Your task to perform on an android device: turn notification dots on Image 0: 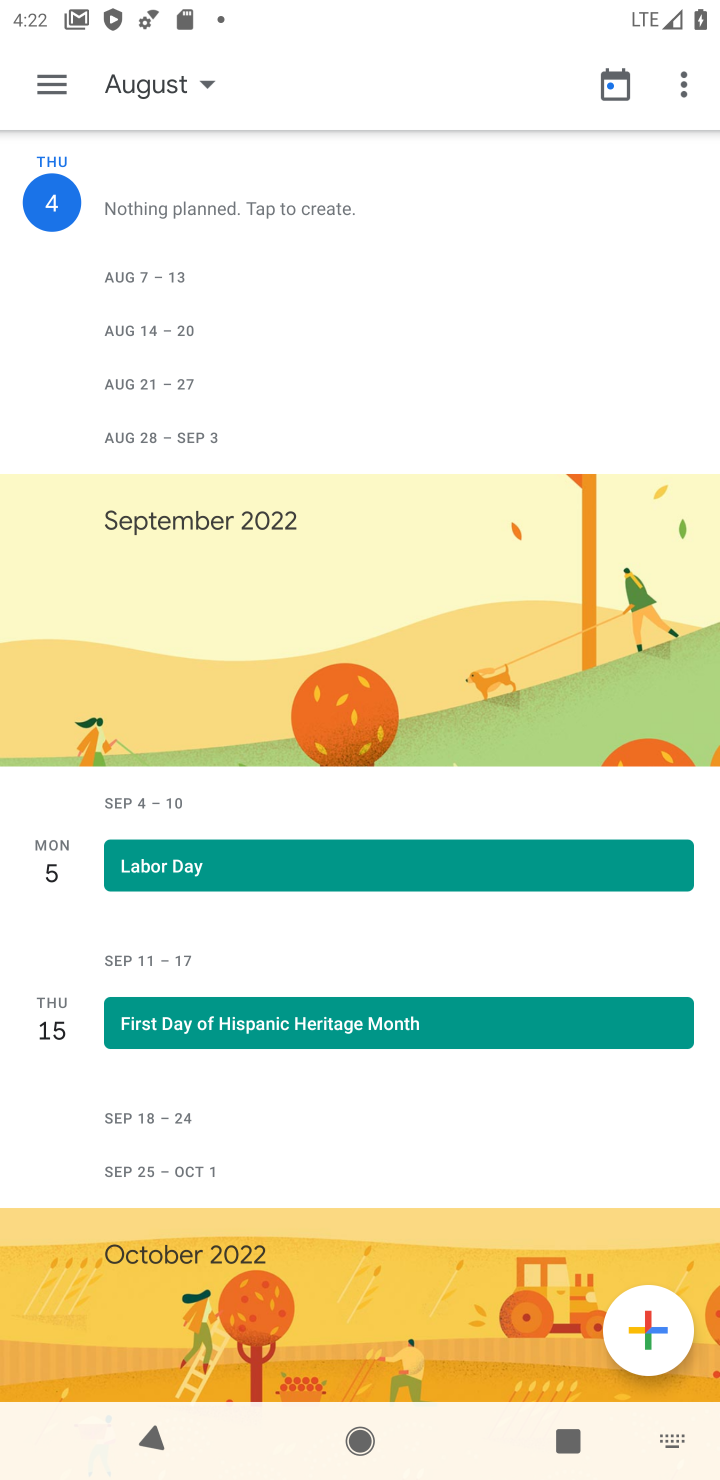
Step 0: press home button
Your task to perform on an android device: turn notification dots on Image 1: 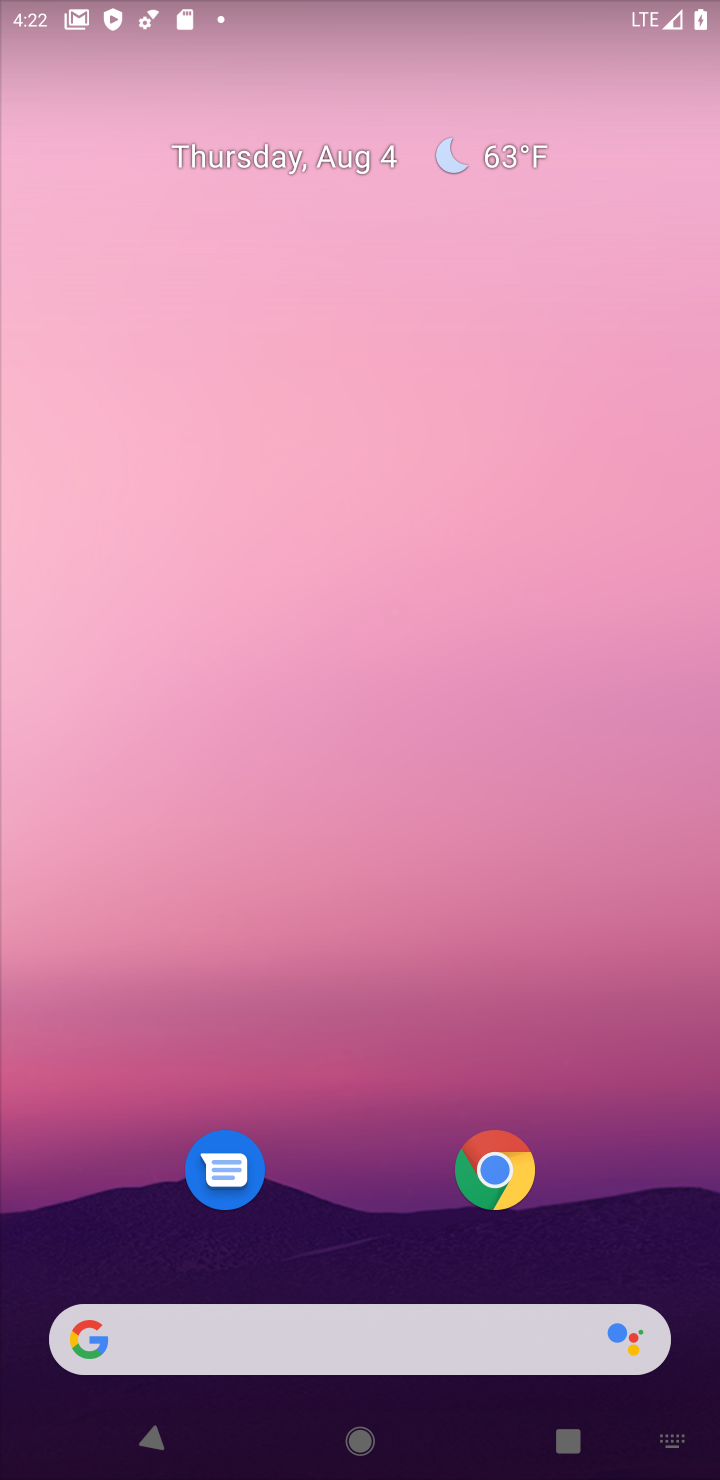
Step 1: drag from (656, 1208) to (520, 93)
Your task to perform on an android device: turn notification dots on Image 2: 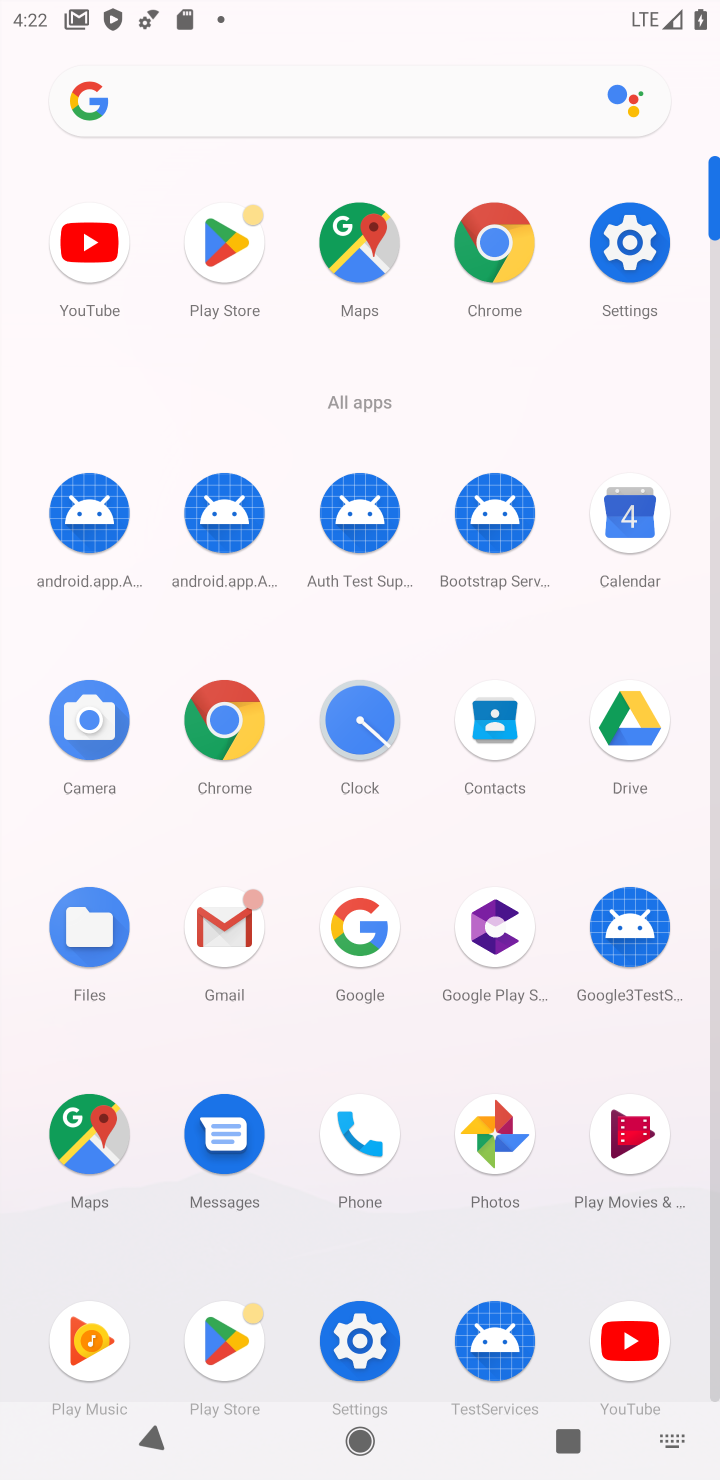
Step 2: click (634, 242)
Your task to perform on an android device: turn notification dots on Image 3: 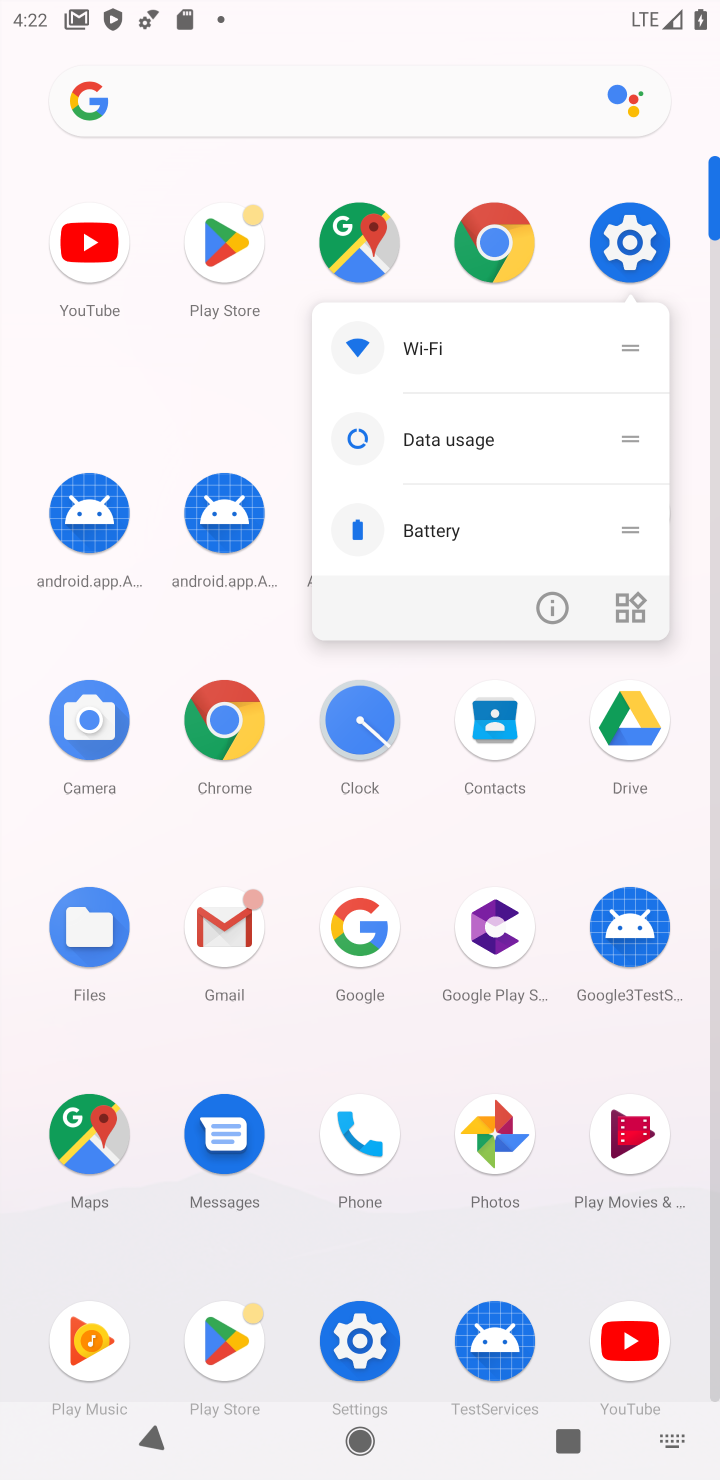
Step 3: click (634, 242)
Your task to perform on an android device: turn notification dots on Image 4: 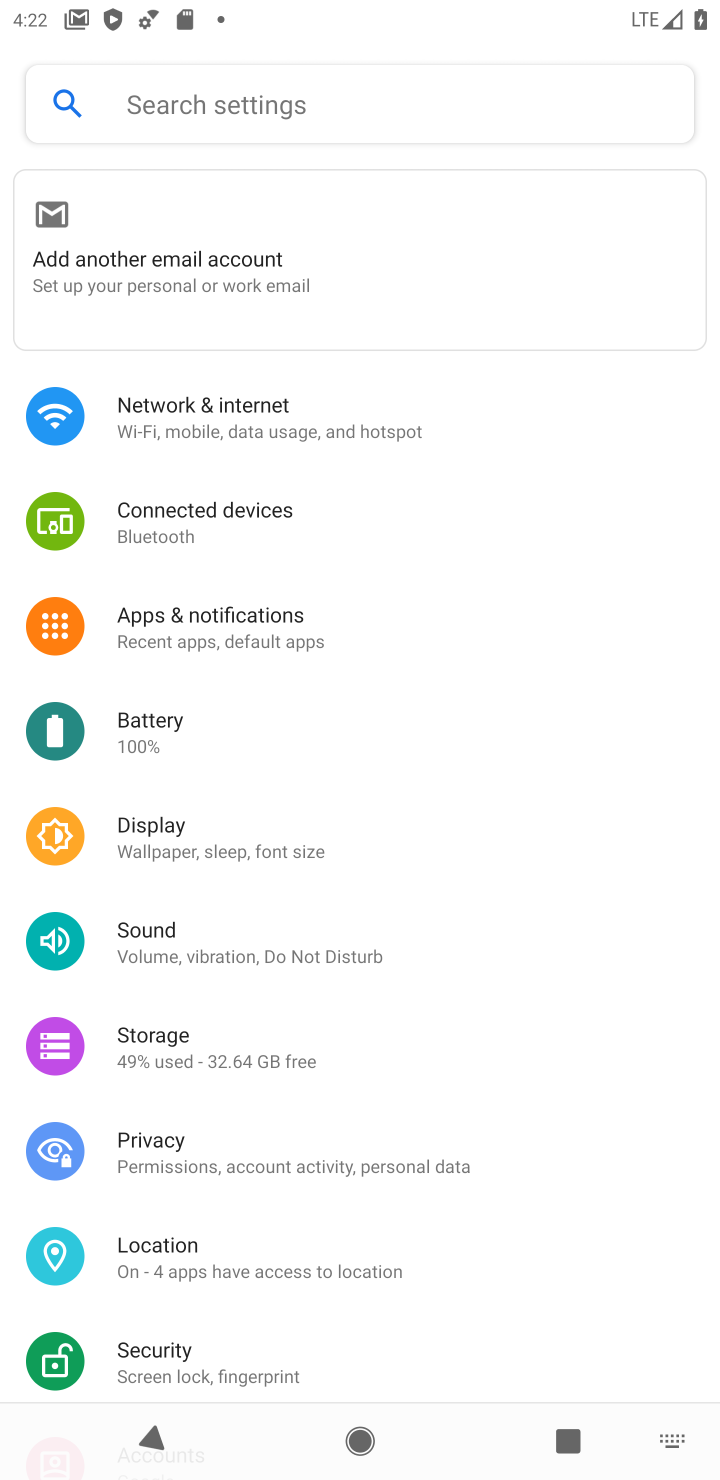
Step 4: click (485, 630)
Your task to perform on an android device: turn notification dots on Image 5: 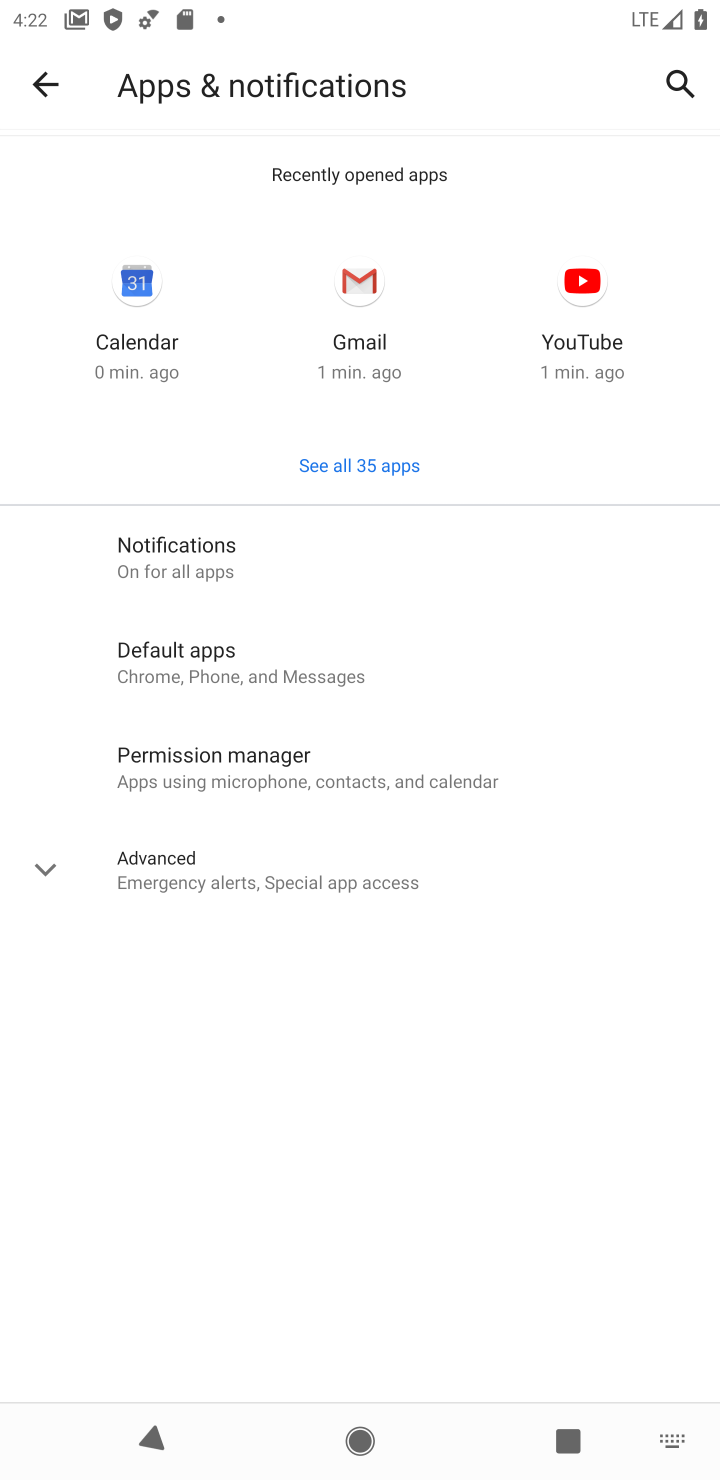
Step 5: click (327, 562)
Your task to perform on an android device: turn notification dots on Image 6: 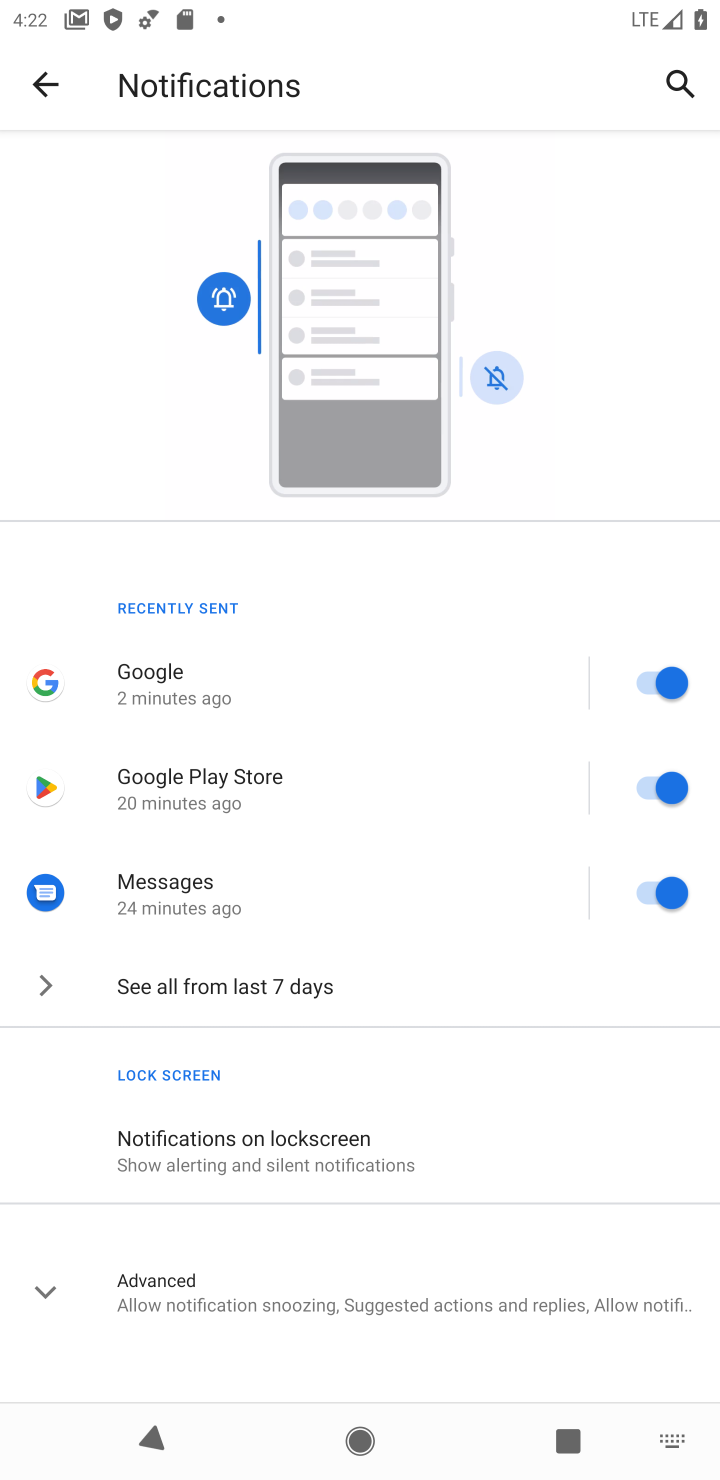
Step 6: click (375, 1238)
Your task to perform on an android device: turn notification dots on Image 7: 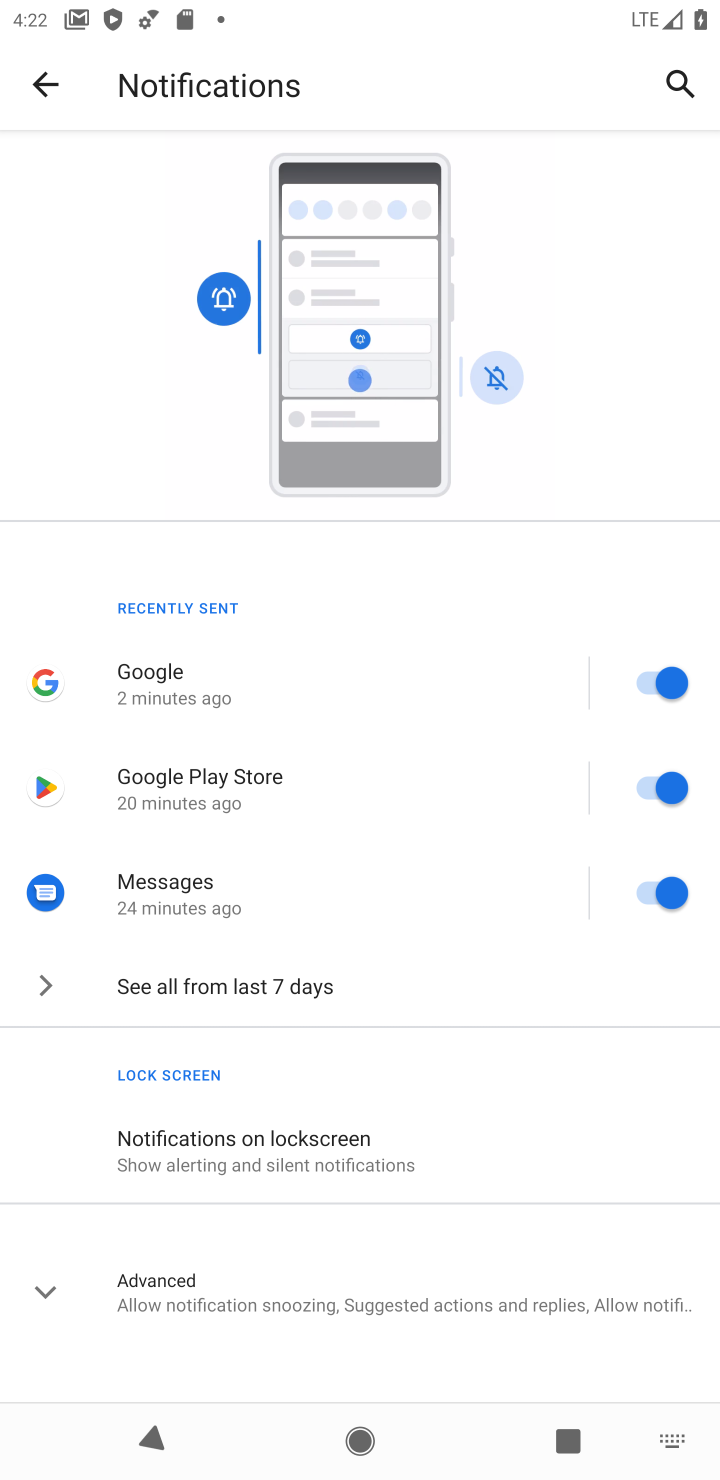
Step 7: drag from (505, 761) to (474, 570)
Your task to perform on an android device: turn notification dots on Image 8: 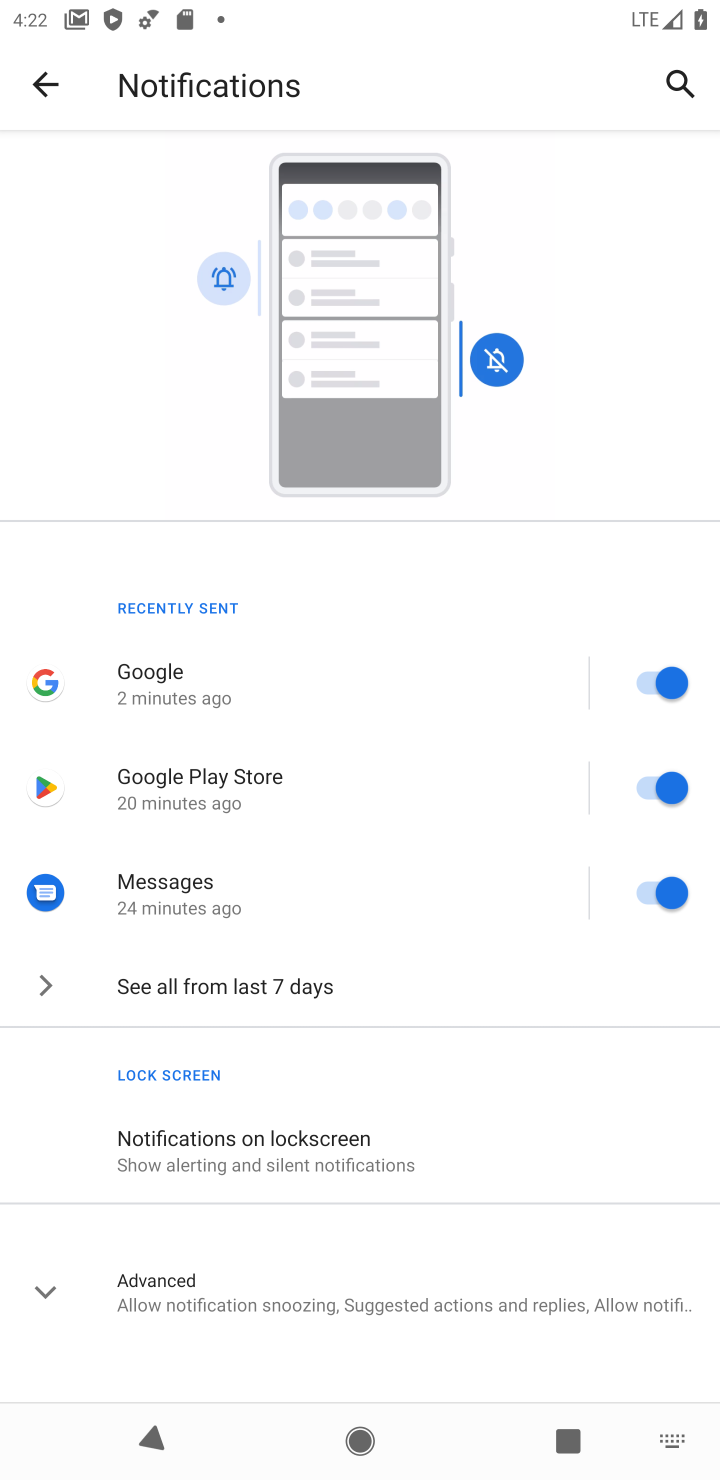
Step 8: click (455, 1285)
Your task to perform on an android device: turn notification dots on Image 9: 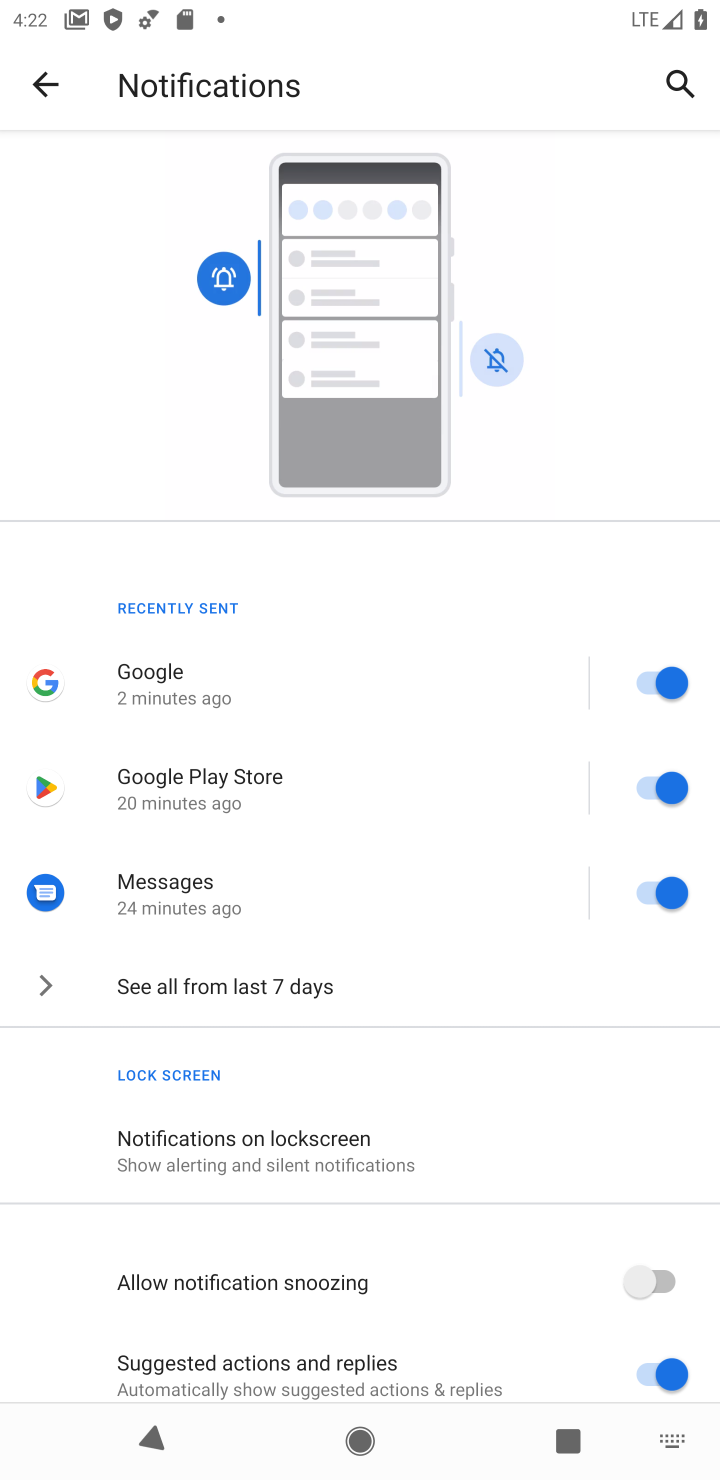
Step 9: task complete